Your task to perform on an android device: toggle pop-ups in chrome Image 0: 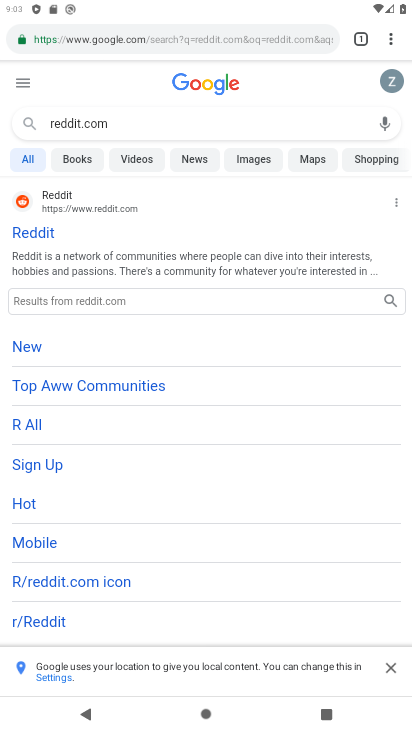
Step 0: press home button
Your task to perform on an android device: toggle pop-ups in chrome Image 1: 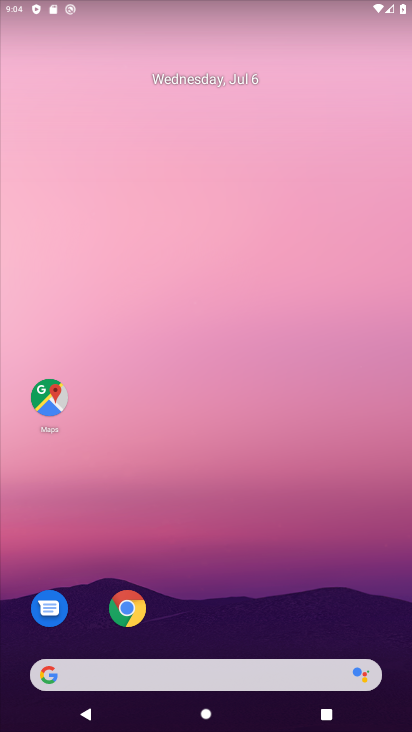
Step 1: click (121, 604)
Your task to perform on an android device: toggle pop-ups in chrome Image 2: 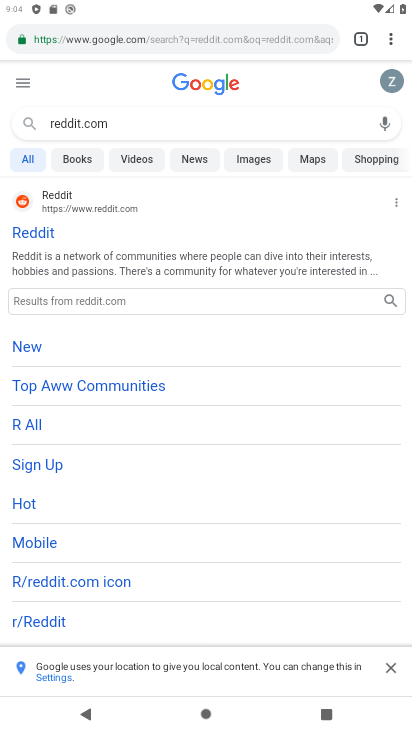
Step 2: click (391, 38)
Your task to perform on an android device: toggle pop-ups in chrome Image 3: 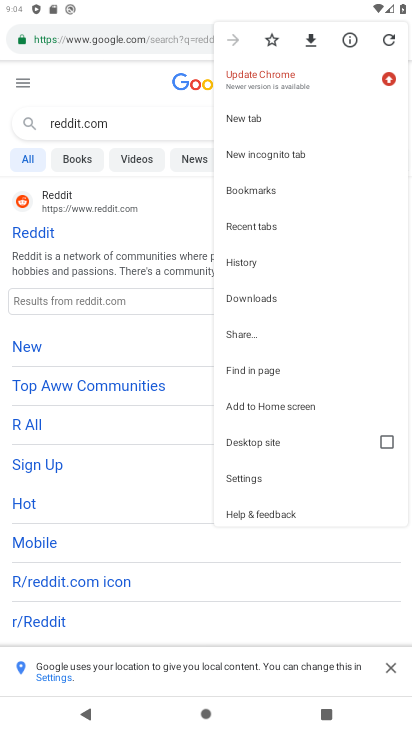
Step 3: click (244, 477)
Your task to perform on an android device: toggle pop-ups in chrome Image 4: 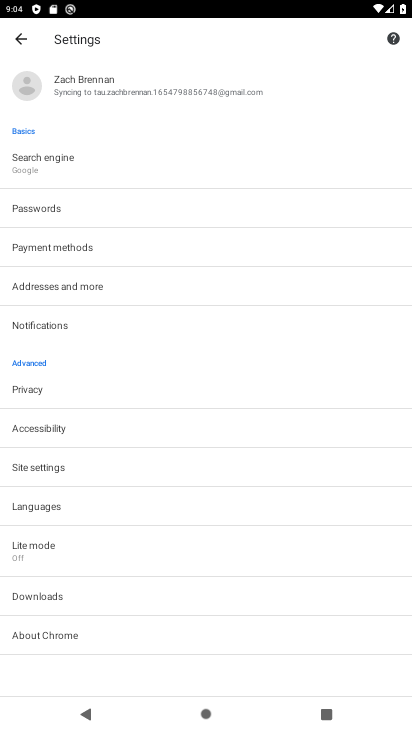
Step 4: click (41, 461)
Your task to perform on an android device: toggle pop-ups in chrome Image 5: 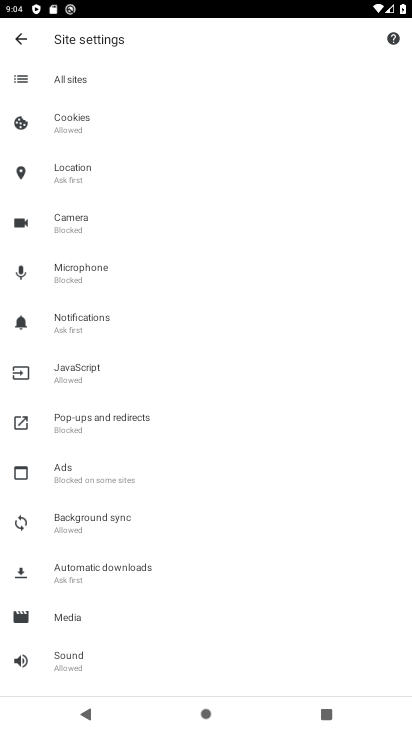
Step 5: click (72, 415)
Your task to perform on an android device: toggle pop-ups in chrome Image 6: 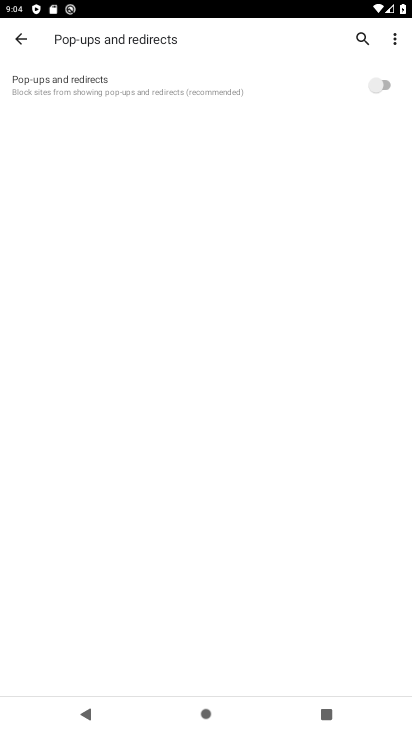
Step 6: click (376, 85)
Your task to perform on an android device: toggle pop-ups in chrome Image 7: 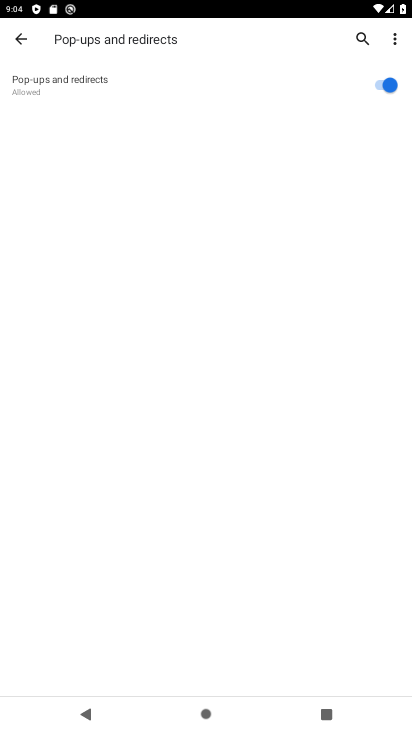
Step 7: task complete